Your task to perform on an android device: turn off priority inbox in the gmail app Image 0: 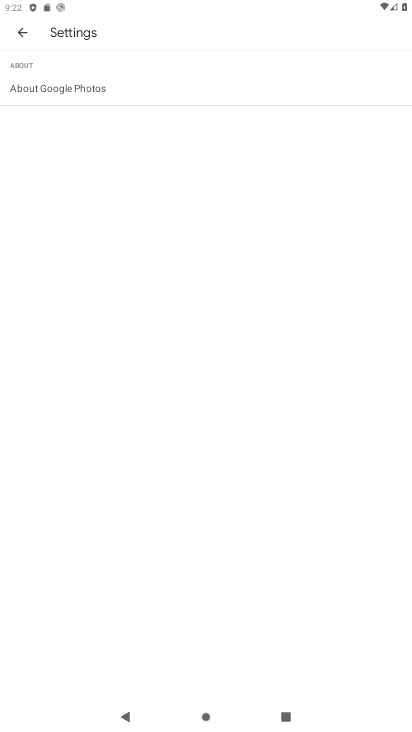
Step 0: press home button
Your task to perform on an android device: turn off priority inbox in the gmail app Image 1: 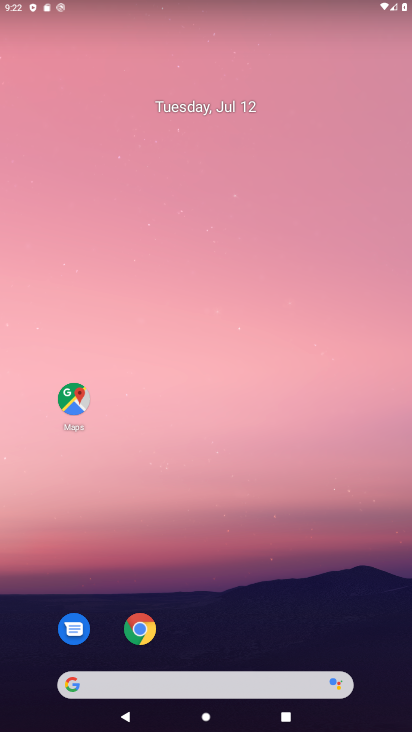
Step 1: drag from (283, 688) to (383, 55)
Your task to perform on an android device: turn off priority inbox in the gmail app Image 2: 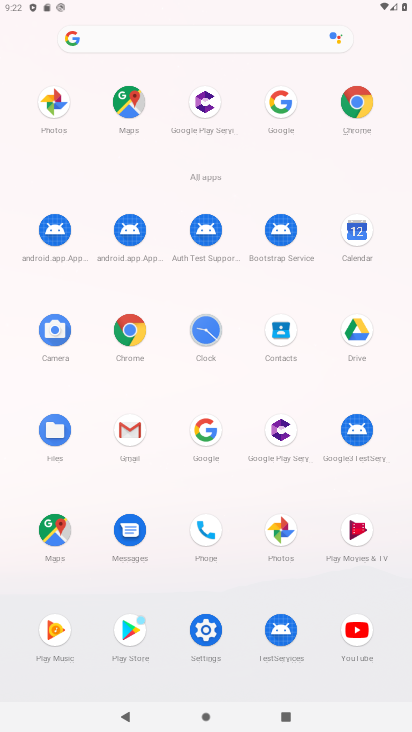
Step 2: click (138, 432)
Your task to perform on an android device: turn off priority inbox in the gmail app Image 3: 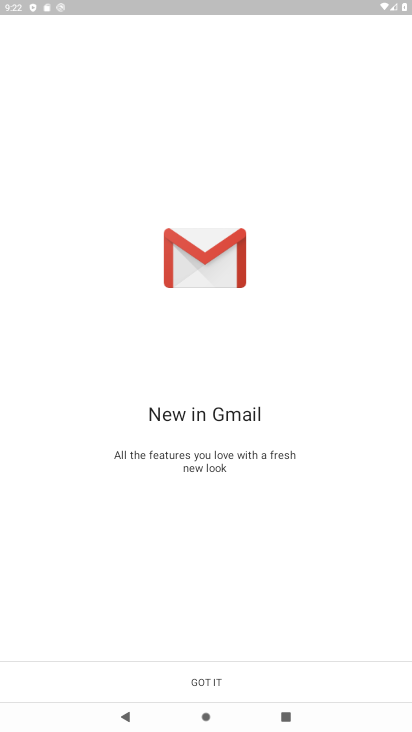
Step 3: click (210, 675)
Your task to perform on an android device: turn off priority inbox in the gmail app Image 4: 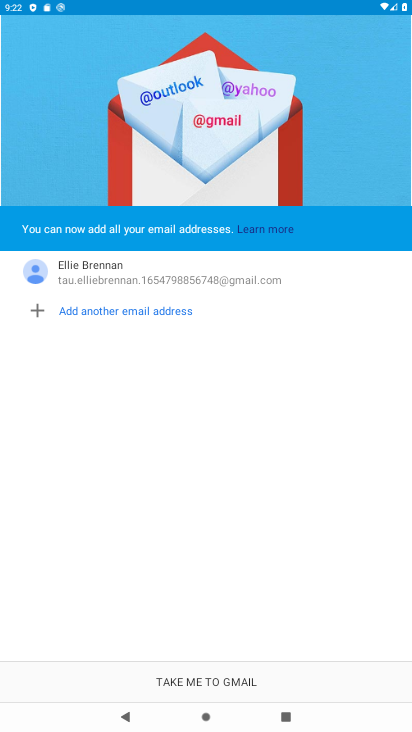
Step 4: click (205, 676)
Your task to perform on an android device: turn off priority inbox in the gmail app Image 5: 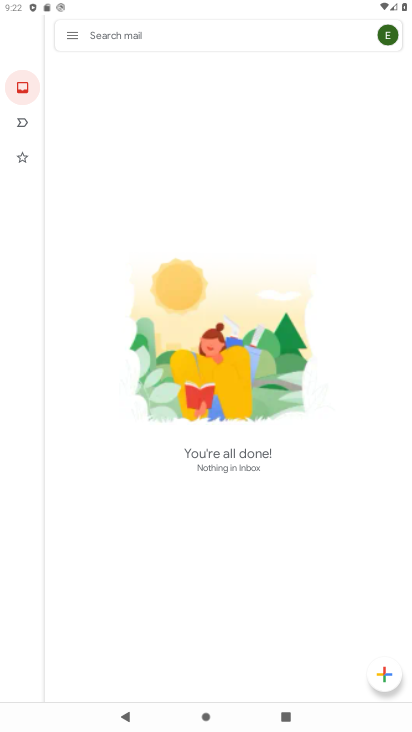
Step 5: click (69, 32)
Your task to perform on an android device: turn off priority inbox in the gmail app Image 6: 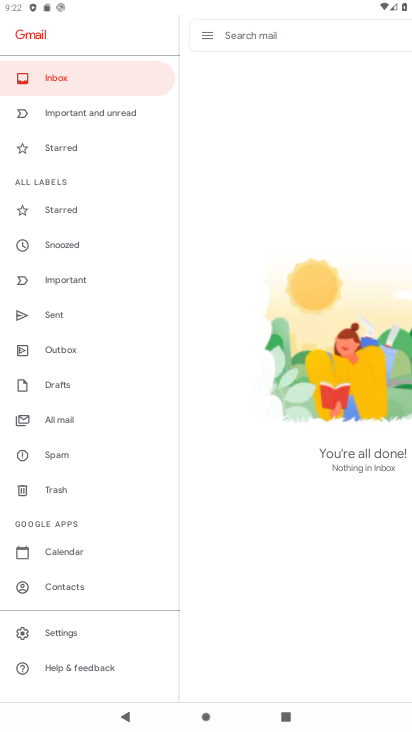
Step 6: click (53, 633)
Your task to perform on an android device: turn off priority inbox in the gmail app Image 7: 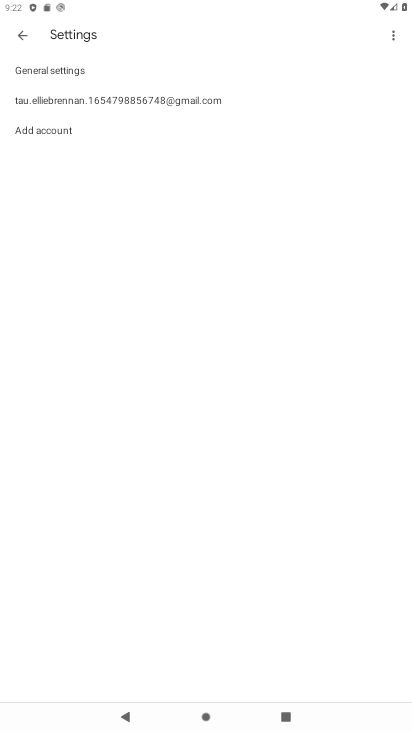
Step 7: click (131, 98)
Your task to perform on an android device: turn off priority inbox in the gmail app Image 8: 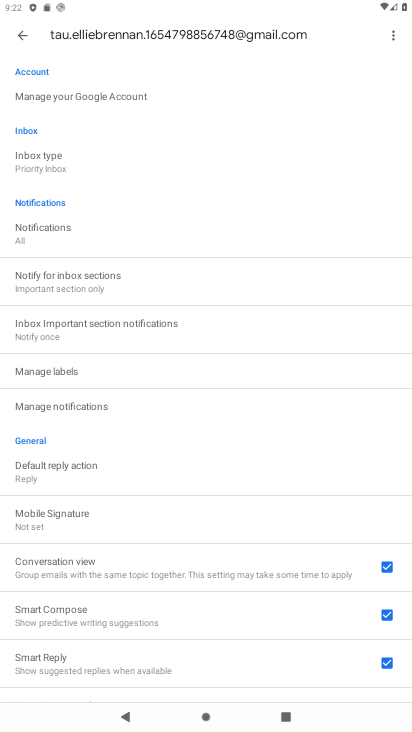
Step 8: click (52, 167)
Your task to perform on an android device: turn off priority inbox in the gmail app Image 9: 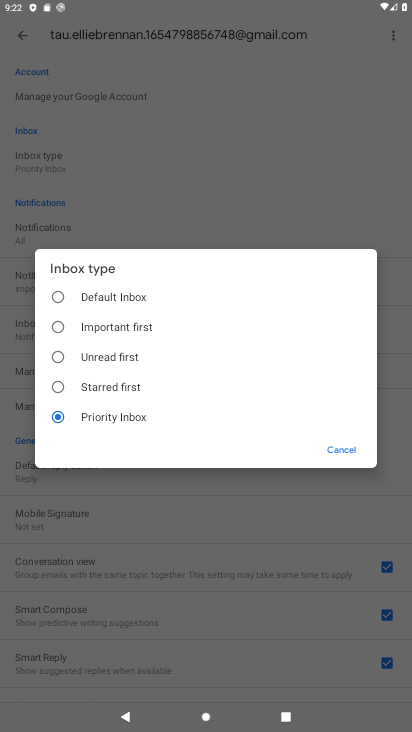
Step 9: click (54, 296)
Your task to perform on an android device: turn off priority inbox in the gmail app Image 10: 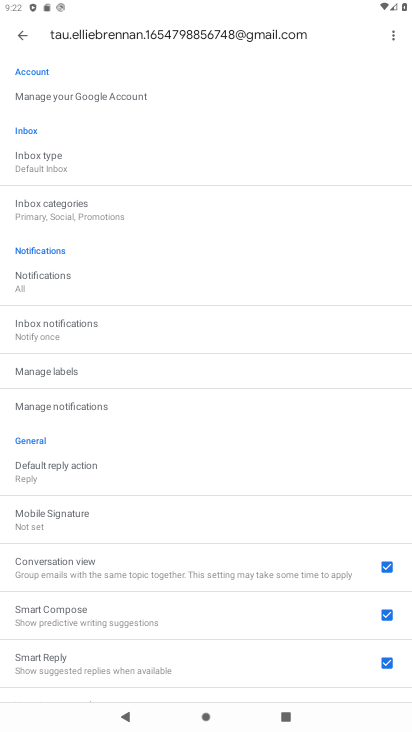
Step 10: task complete